Your task to perform on an android device: Search for the most popular coffee table on Crate & Barrel Image 0: 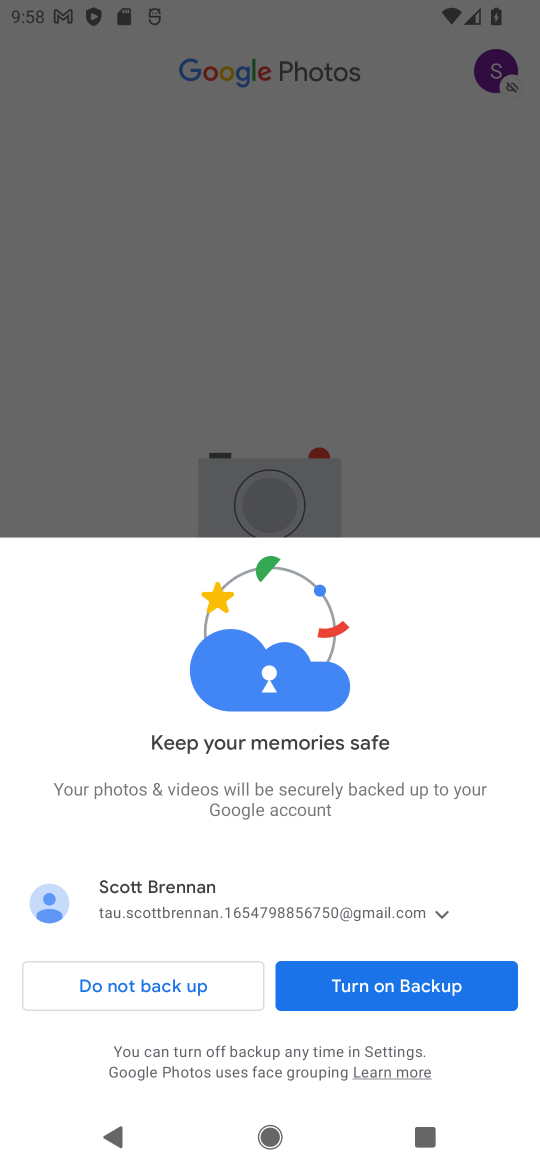
Step 0: press home button
Your task to perform on an android device: Search for the most popular coffee table on Crate & Barrel Image 1: 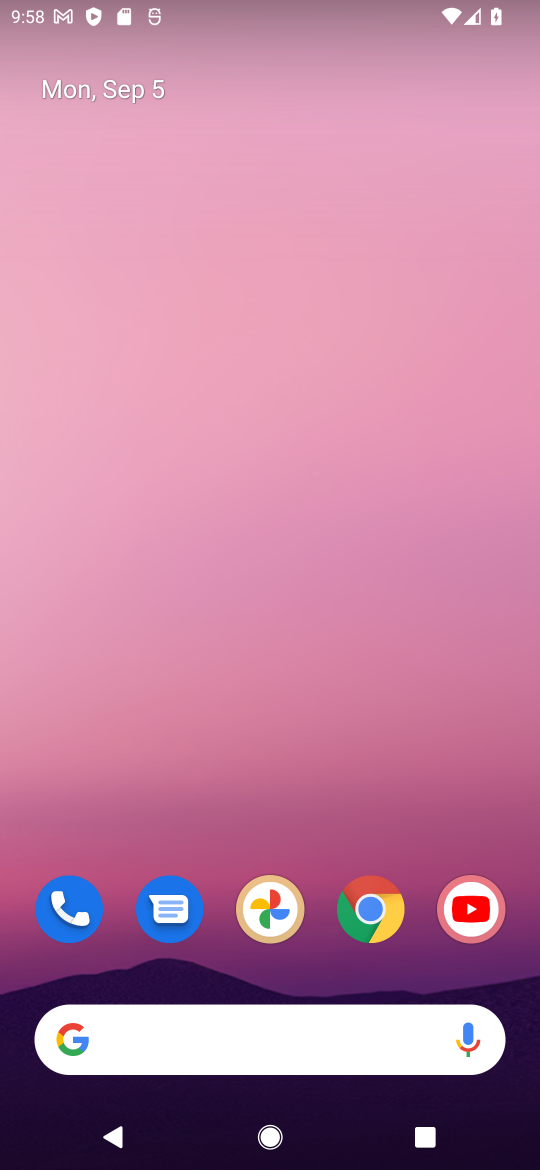
Step 1: click (390, 904)
Your task to perform on an android device: Search for the most popular coffee table on Crate & Barrel Image 2: 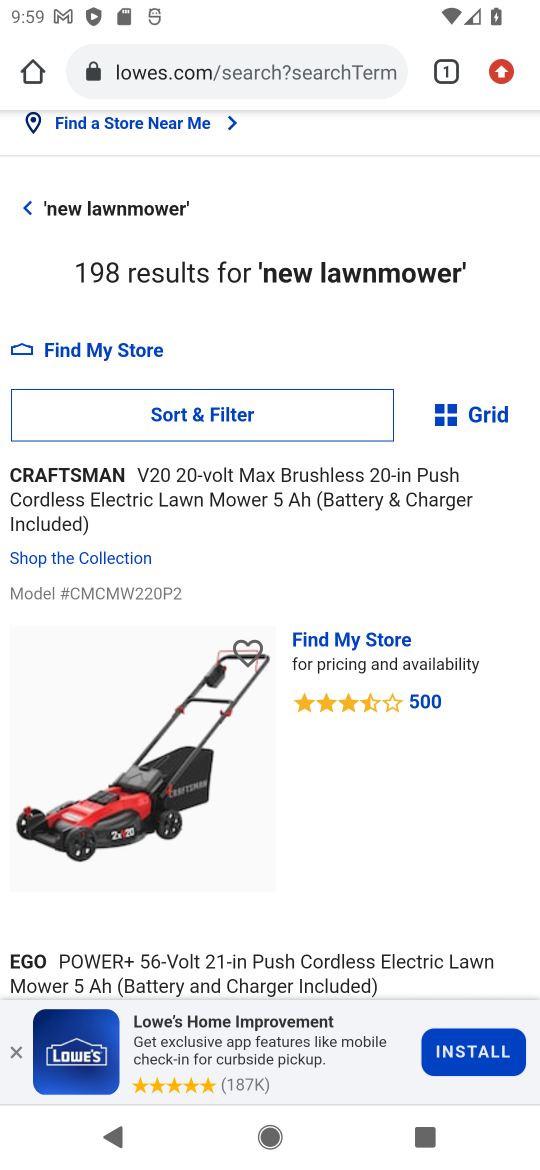
Step 2: click (277, 53)
Your task to perform on an android device: Search for the most popular coffee table on Crate & Barrel Image 3: 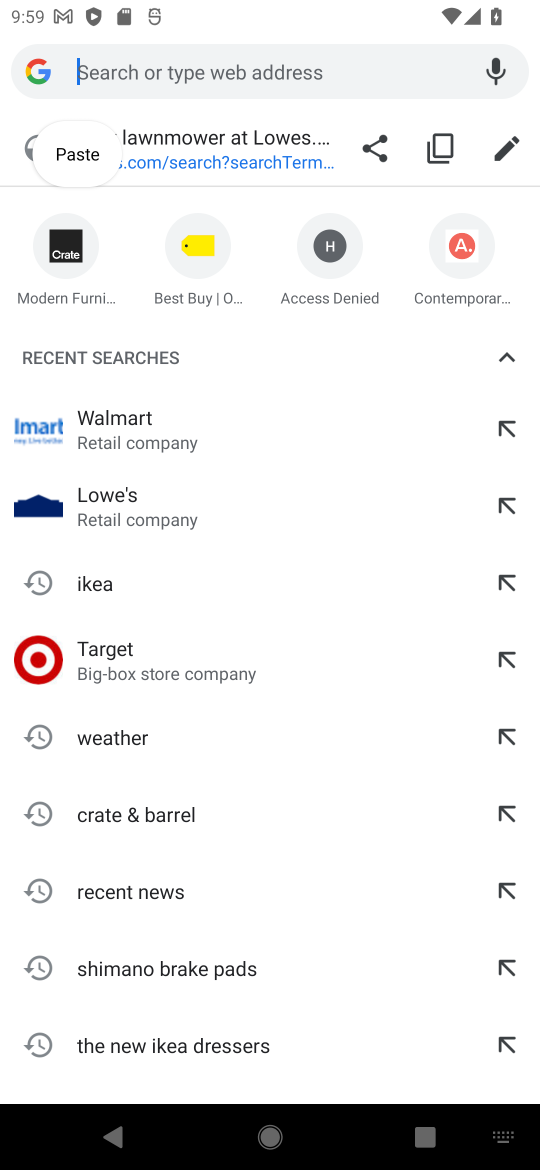
Step 3: type "crateandbarrel"
Your task to perform on an android device: Search for the most popular coffee table on Crate & Barrel Image 4: 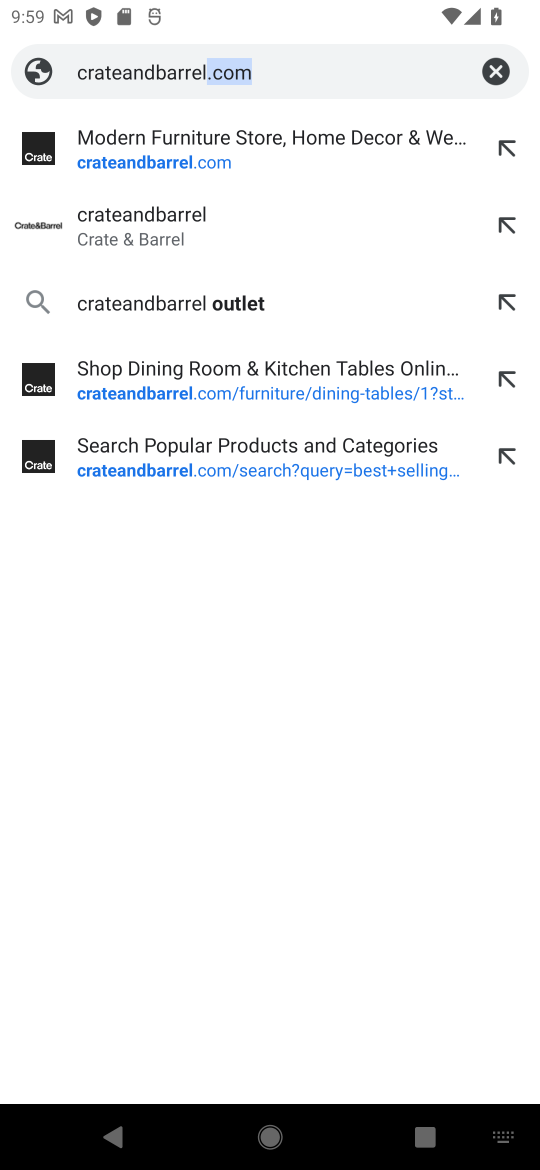
Step 4: click (224, 135)
Your task to perform on an android device: Search for the most popular coffee table on Crate & Barrel Image 5: 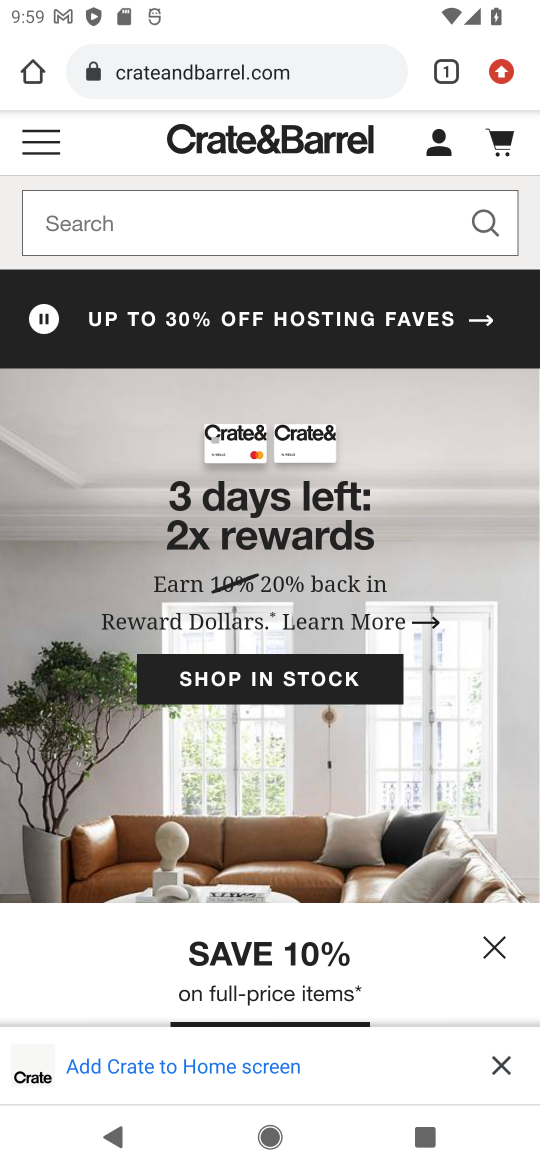
Step 5: click (256, 218)
Your task to perform on an android device: Search for the most popular coffee table on Crate & Barrel Image 6: 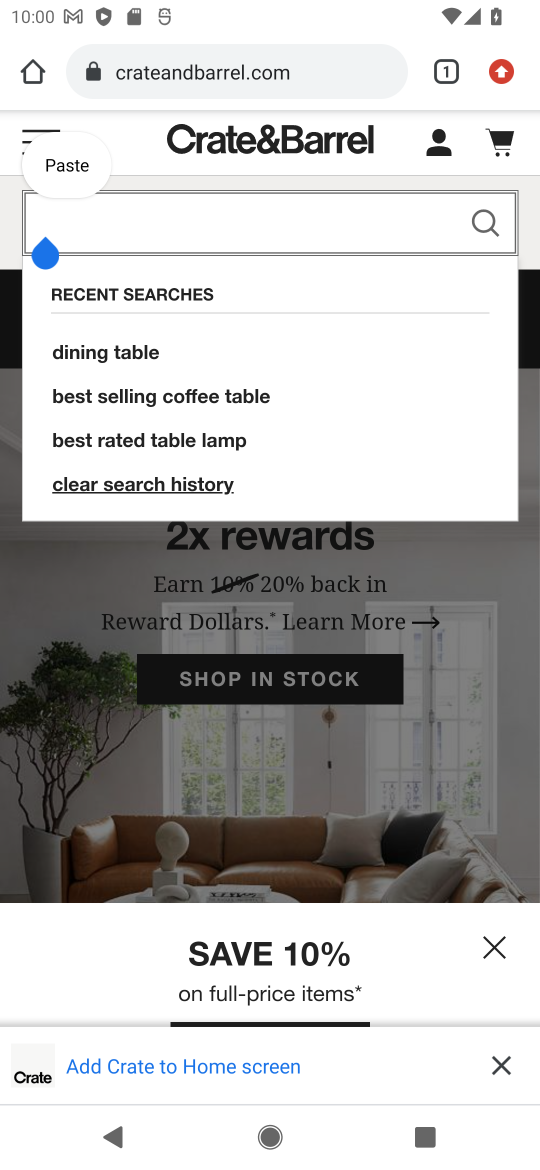
Step 6: click (146, 218)
Your task to perform on an android device: Search for the most popular coffee table on Crate & Barrel Image 7: 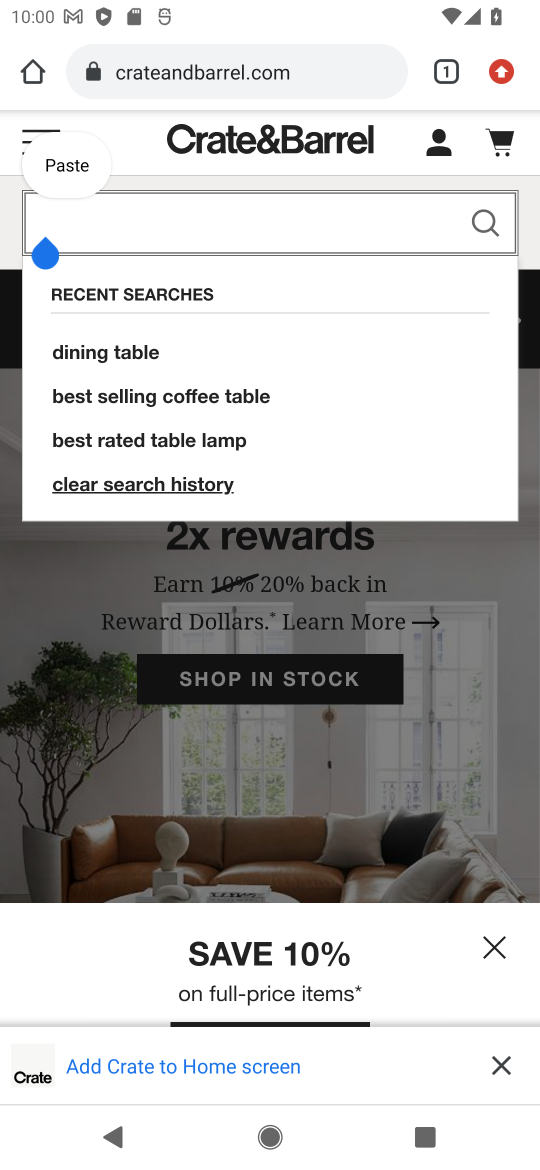
Step 7: type "most popular coffee table"
Your task to perform on an android device: Search for the most popular coffee table on Crate & Barrel Image 8: 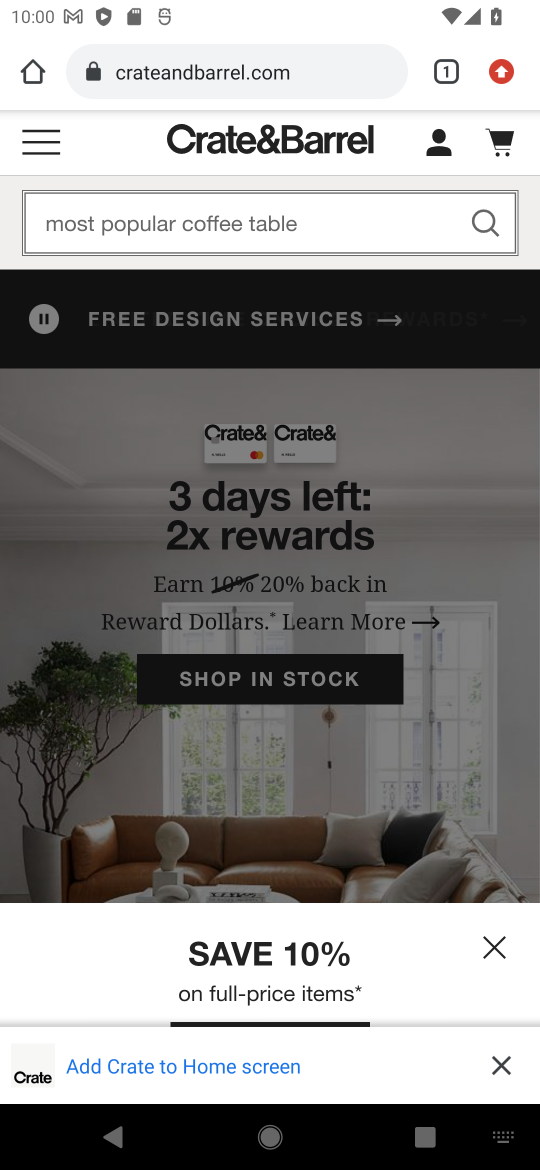
Step 8: click (479, 210)
Your task to perform on an android device: Search for the most popular coffee table on Crate & Barrel Image 9: 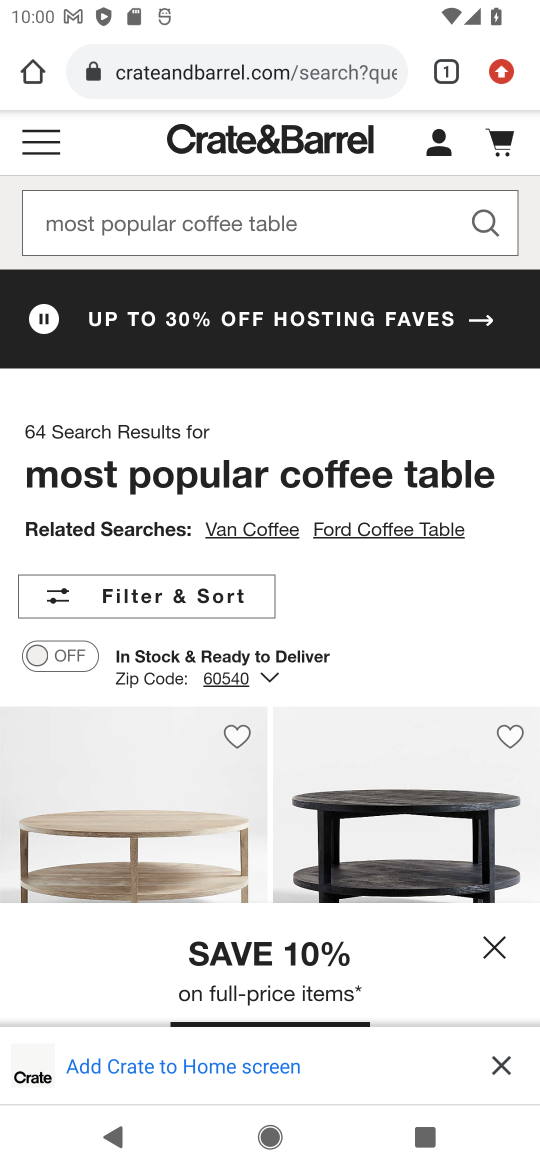
Step 9: task complete